Your task to perform on an android device: open app "Facebook Messenger" (install if not already installed) Image 0: 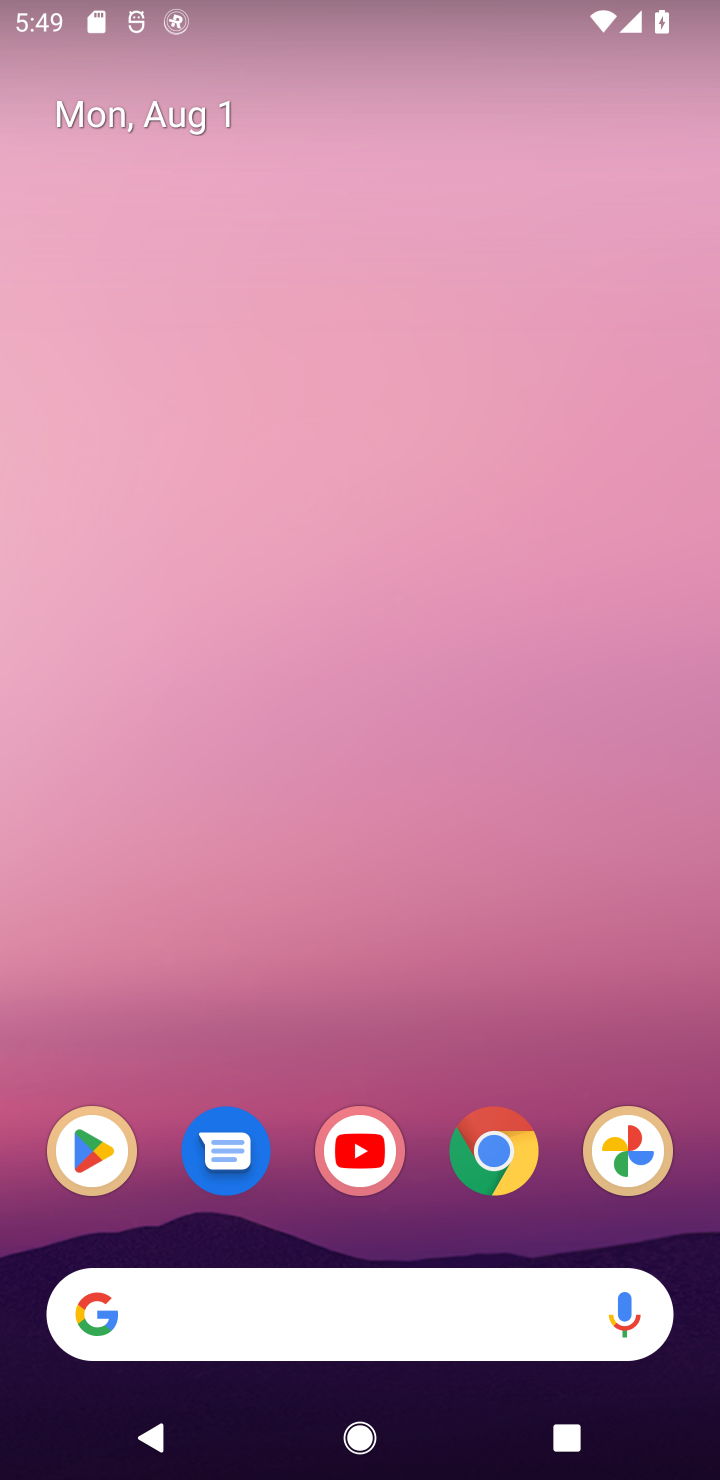
Step 0: click (95, 1153)
Your task to perform on an android device: open app "Facebook Messenger" (install if not already installed) Image 1: 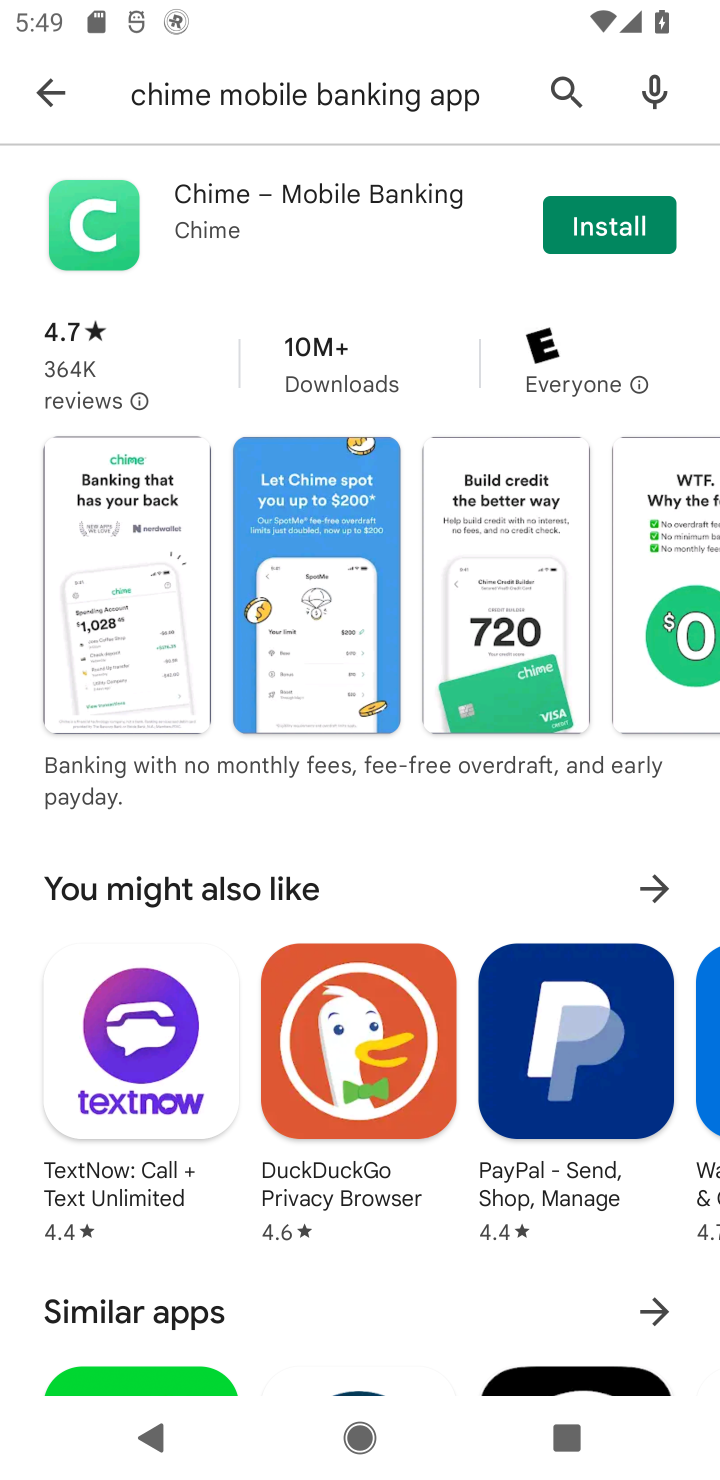
Step 1: click (564, 95)
Your task to perform on an android device: open app "Facebook Messenger" (install if not already installed) Image 2: 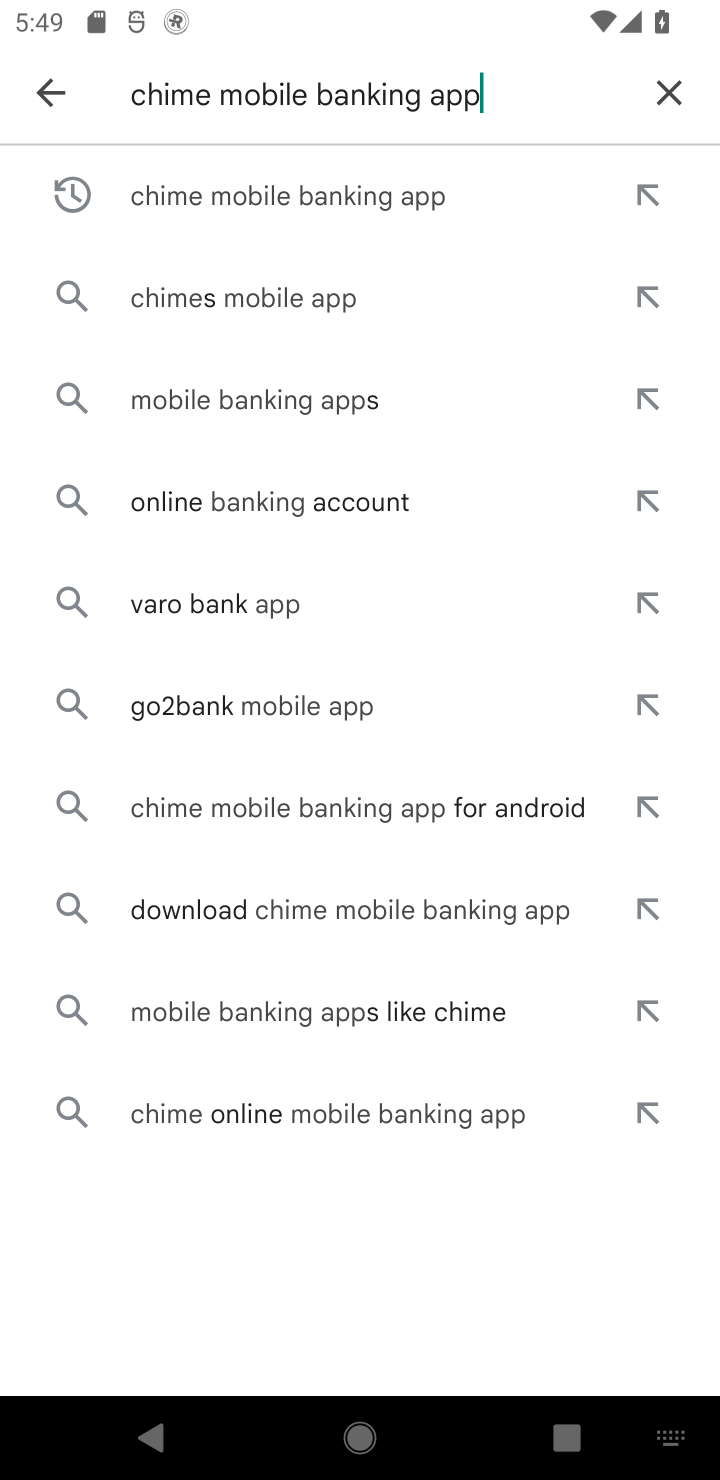
Step 2: click (665, 91)
Your task to perform on an android device: open app "Facebook Messenger" (install if not already installed) Image 3: 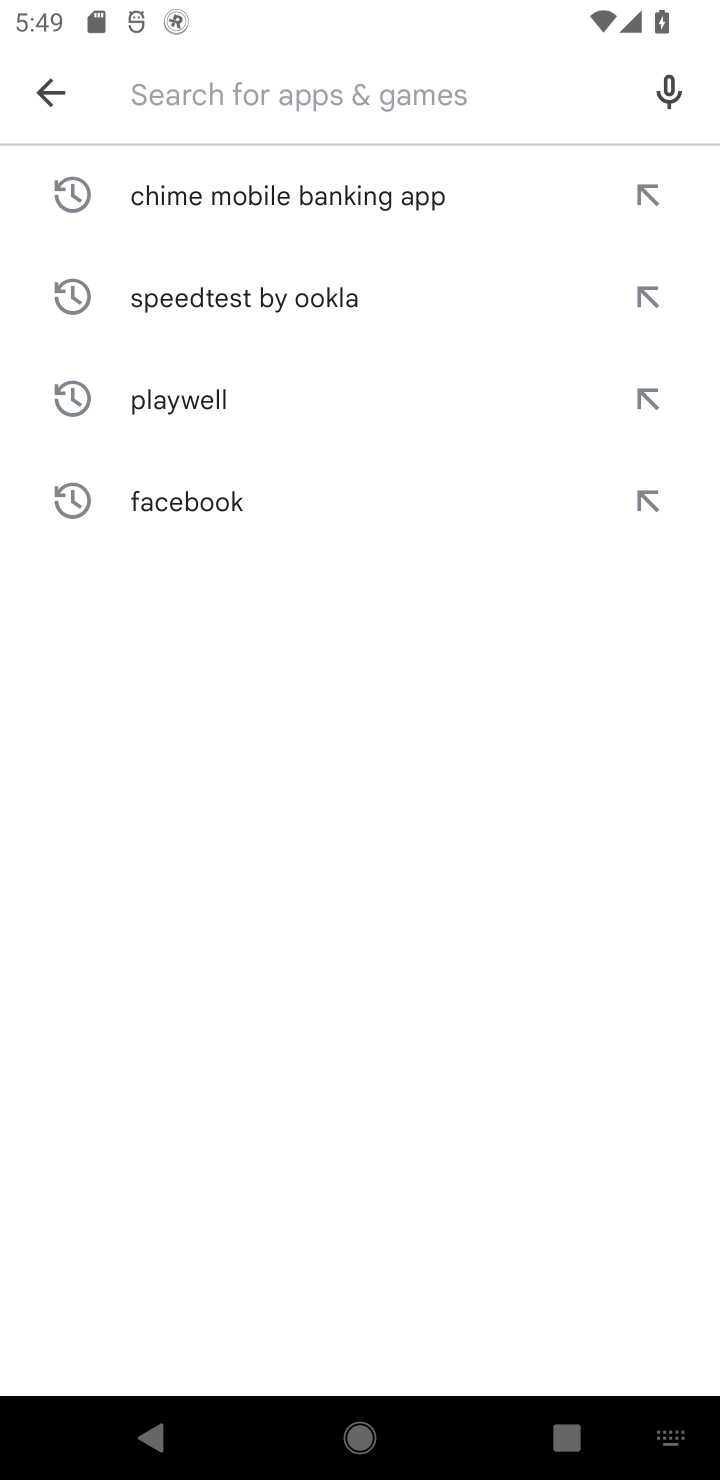
Step 3: type "Facebook Messenger"
Your task to perform on an android device: open app "Facebook Messenger" (install if not already installed) Image 4: 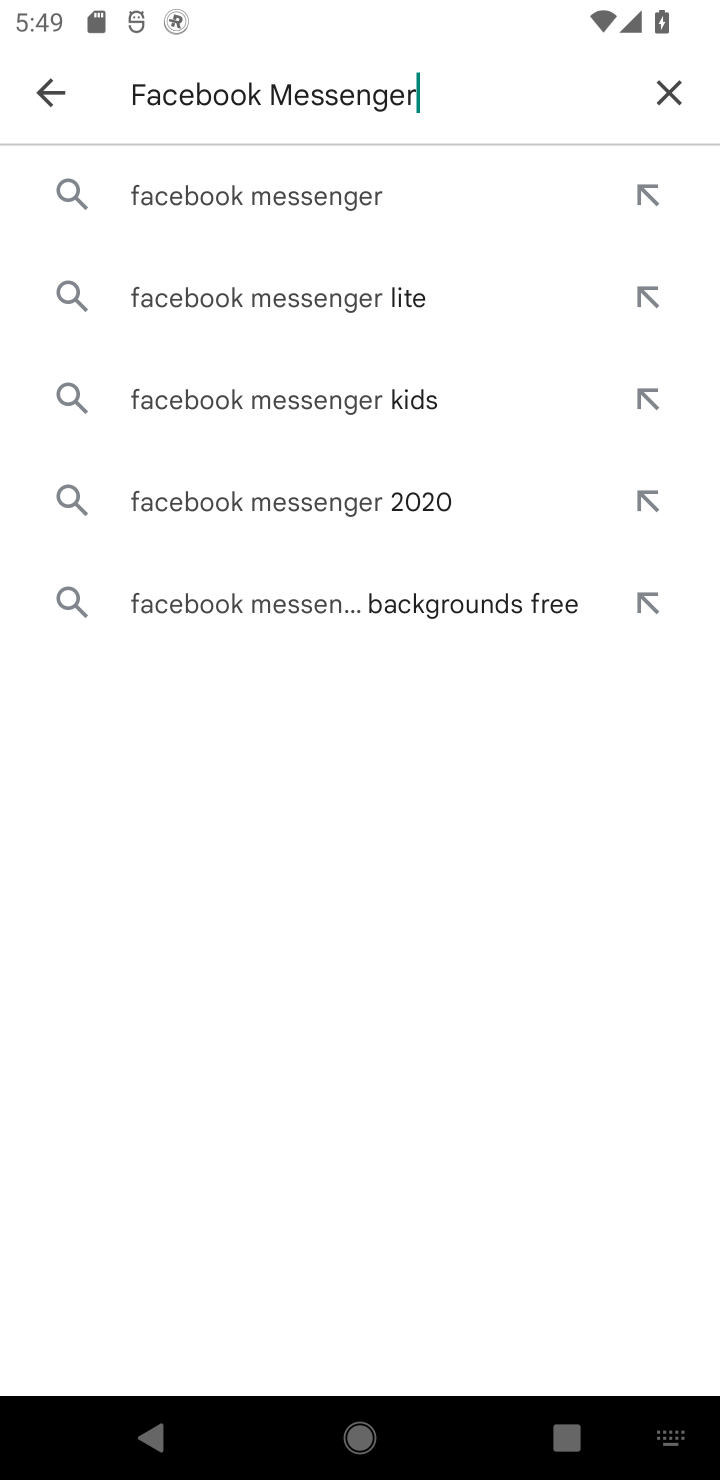
Step 4: click (274, 202)
Your task to perform on an android device: open app "Facebook Messenger" (install if not already installed) Image 5: 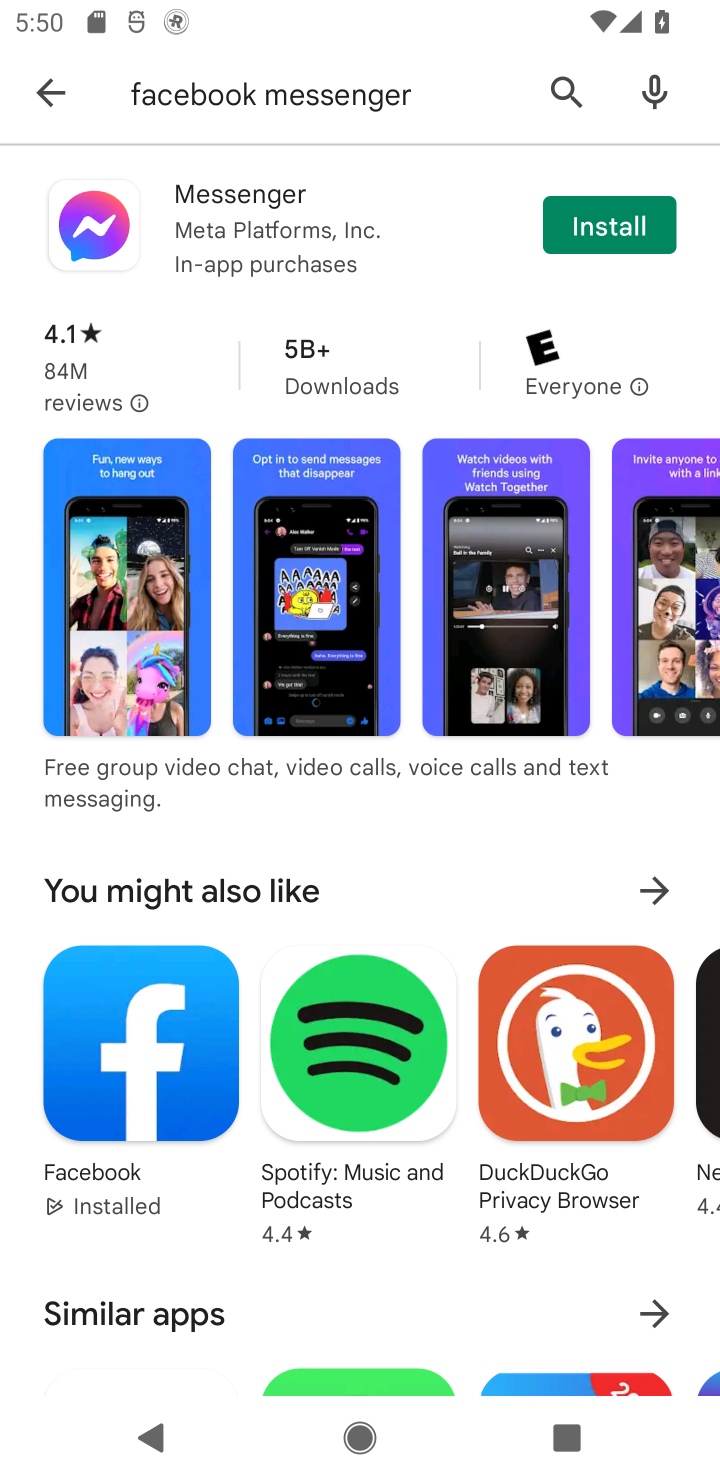
Step 5: click (586, 226)
Your task to perform on an android device: open app "Facebook Messenger" (install if not already installed) Image 6: 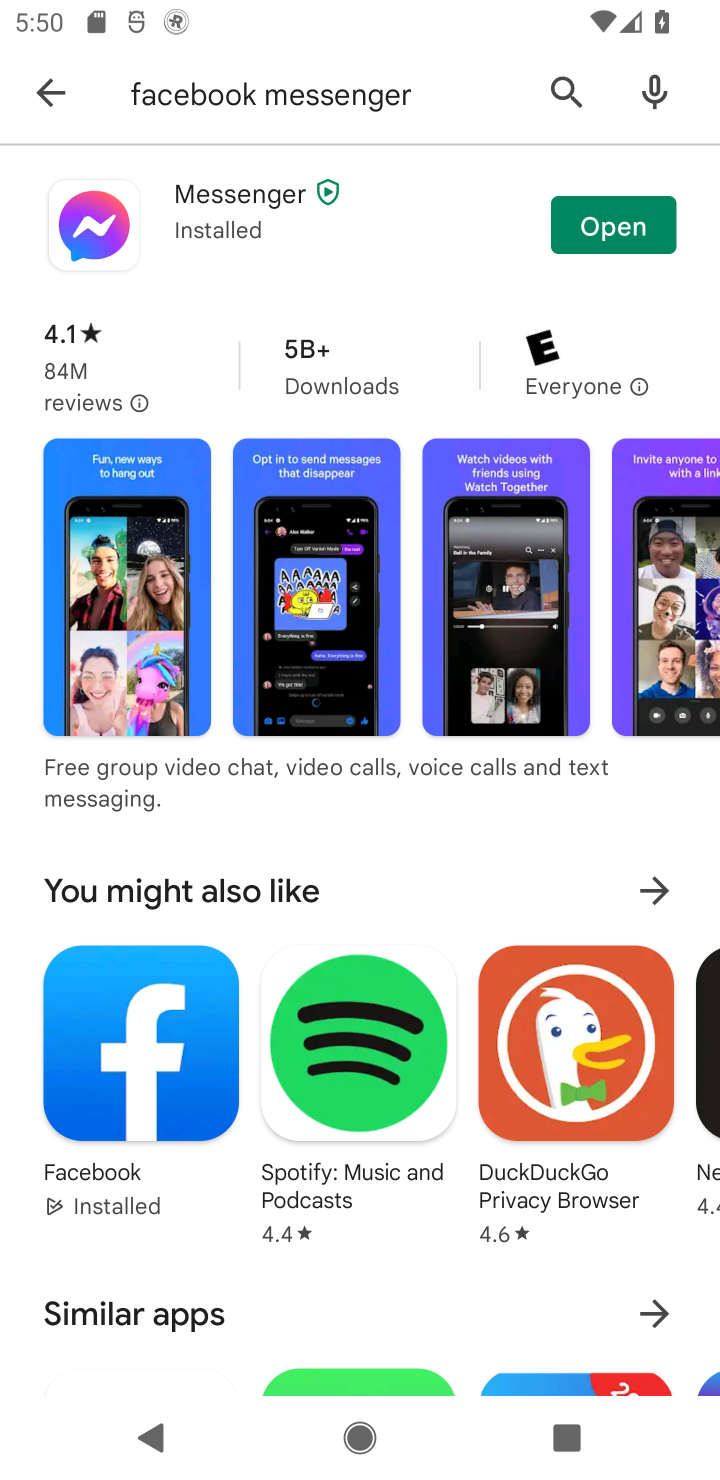
Step 6: click (601, 254)
Your task to perform on an android device: open app "Facebook Messenger" (install if not already installed) Image 7: 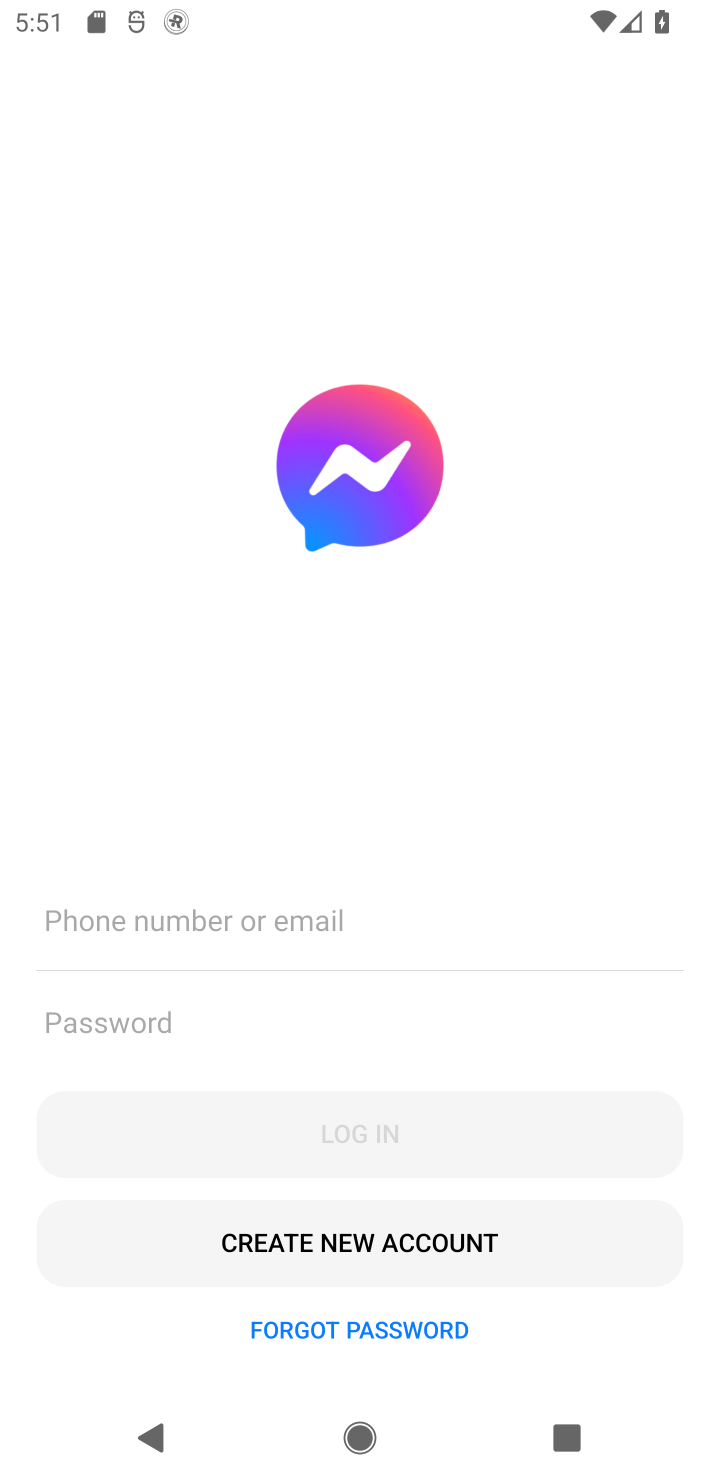
Step 7: task complete